Your task to perform on an android device: change your default location settings in chrome Image 0: 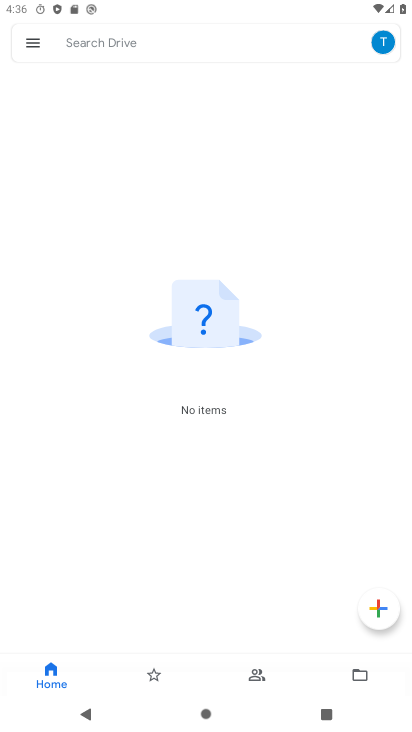
Step 0: press home button
Your task to perform on an android device: change your default location settings in chrome Image 1: 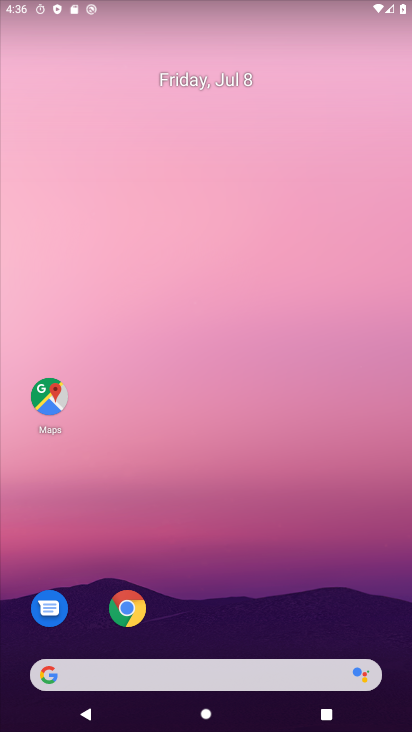
Step 1: drag from (218, 576) to (294, 12)
Your task to perform on an android device: change your default location settings in chrome Image 2: 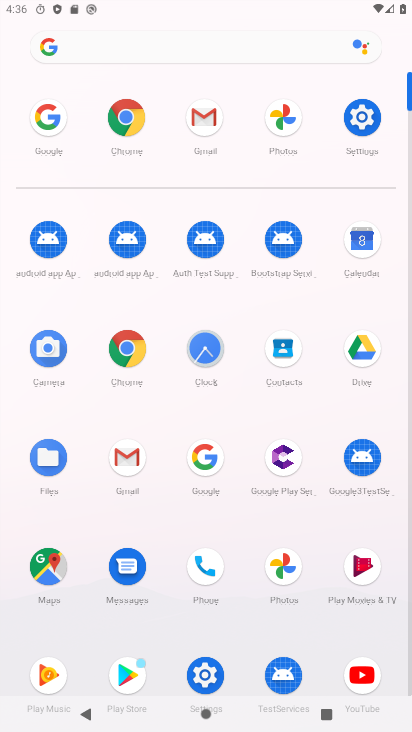
Step 2: click (135, 346)
Your task to perform on an android device: change your default location settings in chrome Image 3: 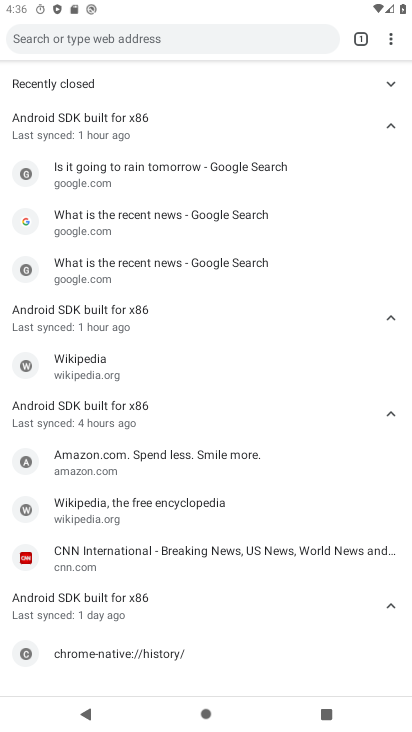
Step 3: drag from (393, 45) to (253, 326)
Your task to perform on an android device: change your default location settings in chrome Image 4: 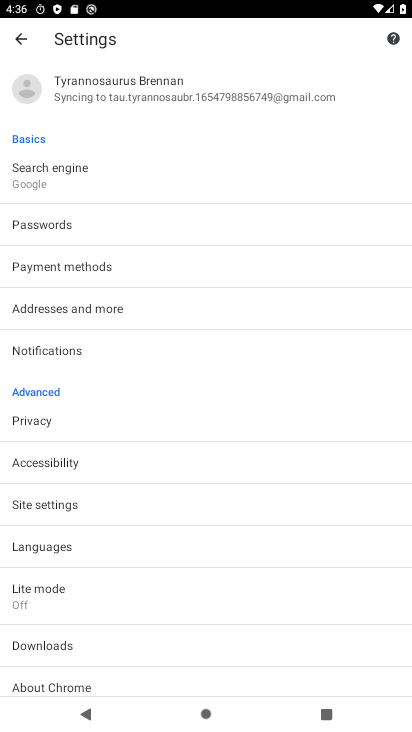
Step 4: click (59, 496)
Your task to perform on an android device: change your default location settings in chrome Image 5: 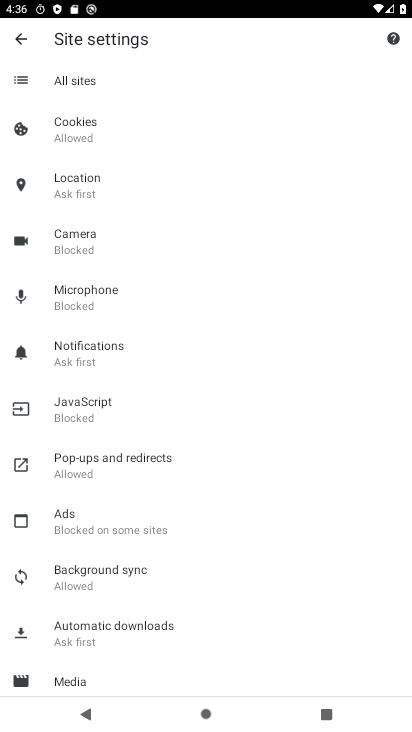
Step 5: click (67, 176)
Your task to perform on an android device: change your default location settings in chrome Image 6: 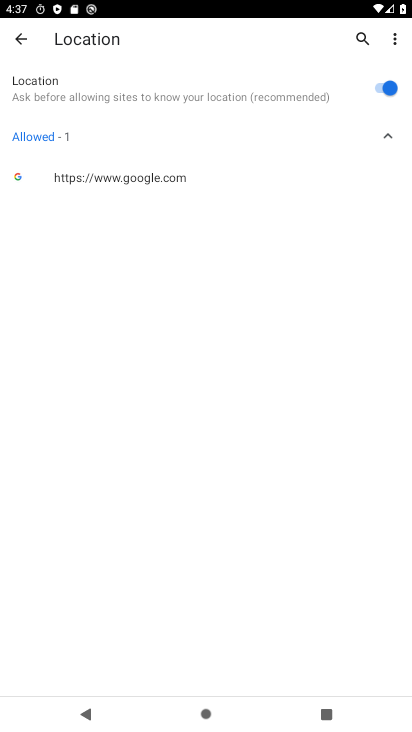
Step 6: click (135, 177)
Your task to perform on an android device: change your default location settings in chrome Image 7: 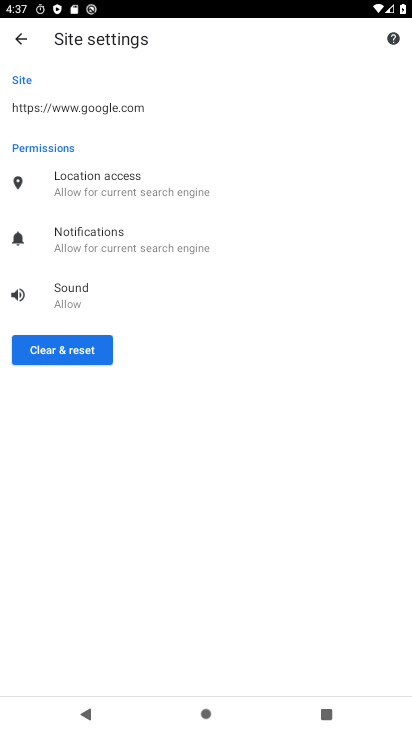
Step 7: click (90, 353)
Your task to perform on an android device: change your default location settings in chrome Image 8: 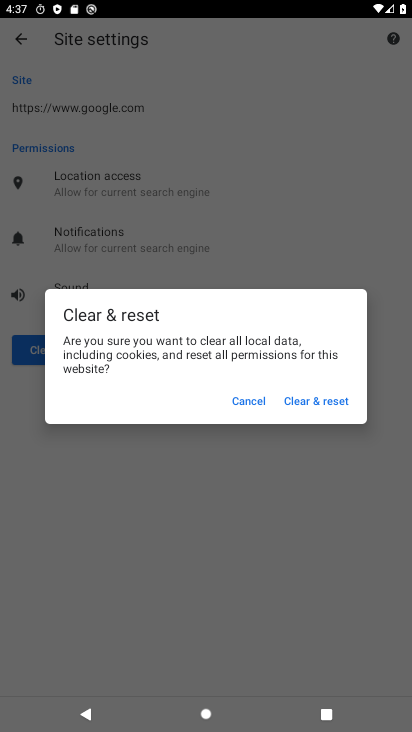
Step 8: click (335, 402)
Your task to perform on an android device: change your default location settings in chrome Image 9: 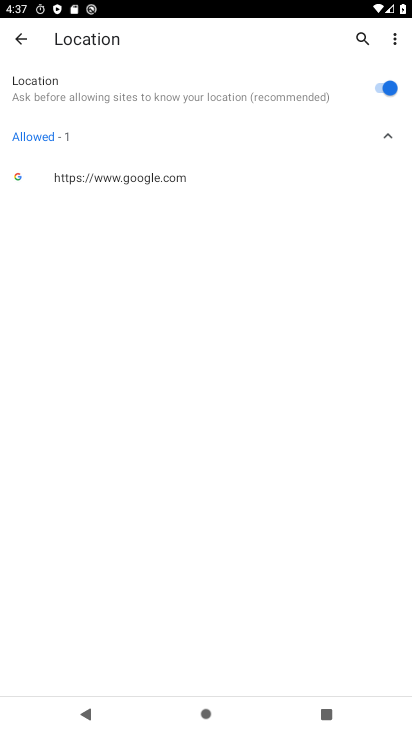
Step 9: task complete